Your task to perform on an android device: Go to network settings Image 0: 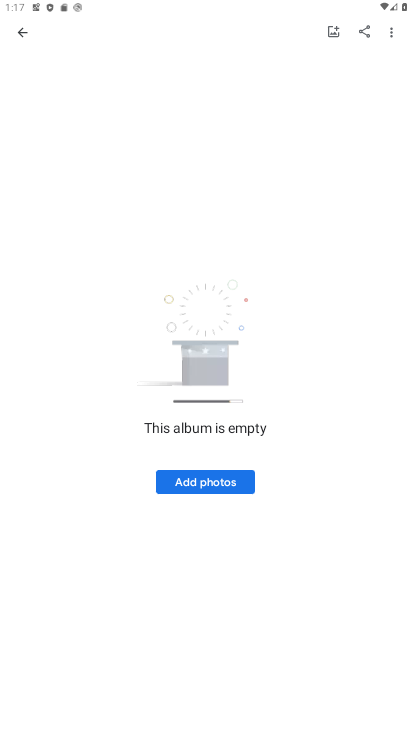
Step 0: press home button
Your task to perform on an android device: Go to network settings Image 1: 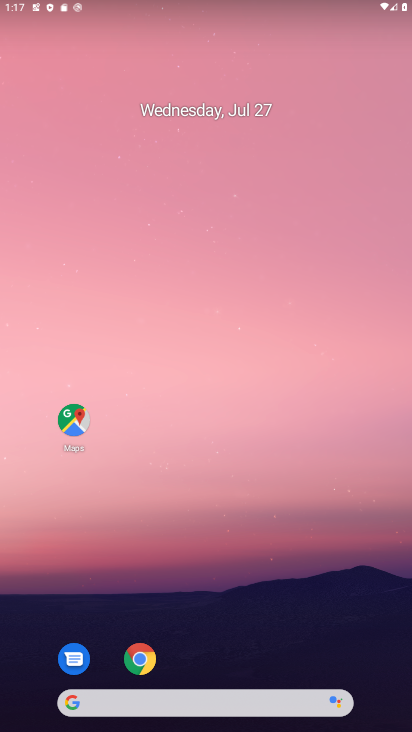
Step 1: drag from (288, 601) to (289, 0)
Your task to perform on an android device: Go to network settings Image 2: 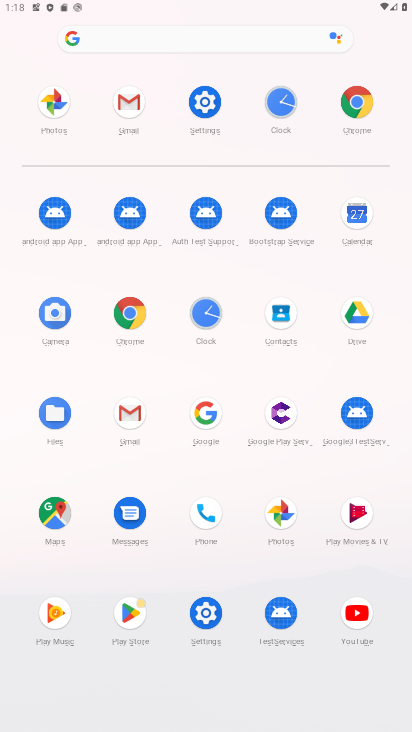
Step 2: click (214, 101)
Your task to perform on an android device: Go to network settings Image 3: 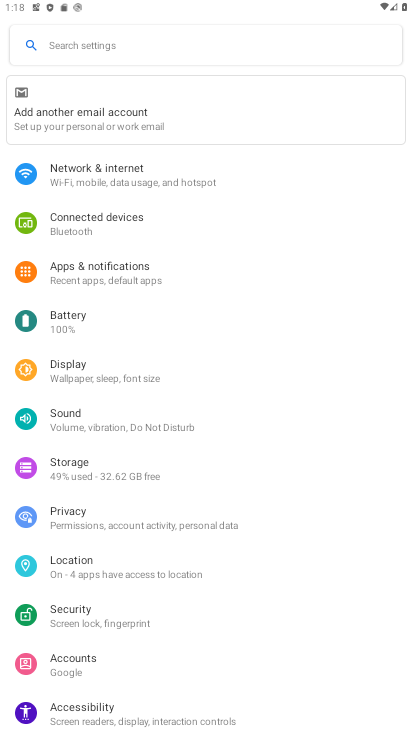
Step 3: click (97, 179)
Your task to perform on an android device: Go to network settings Image 4: 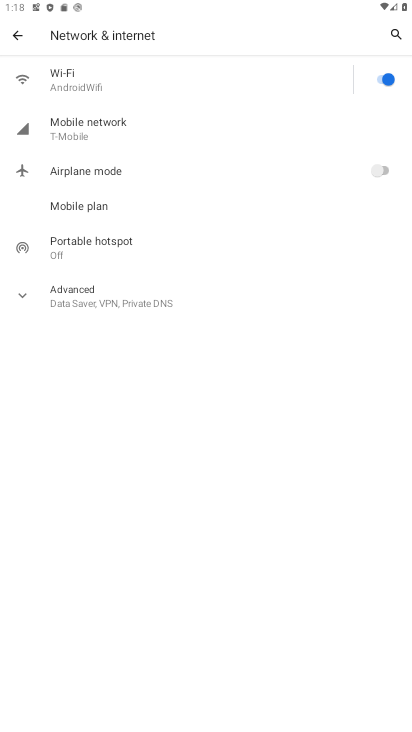
Step 4: task complete